Your task to perform on an android device: When is my next meeting? Image 0: 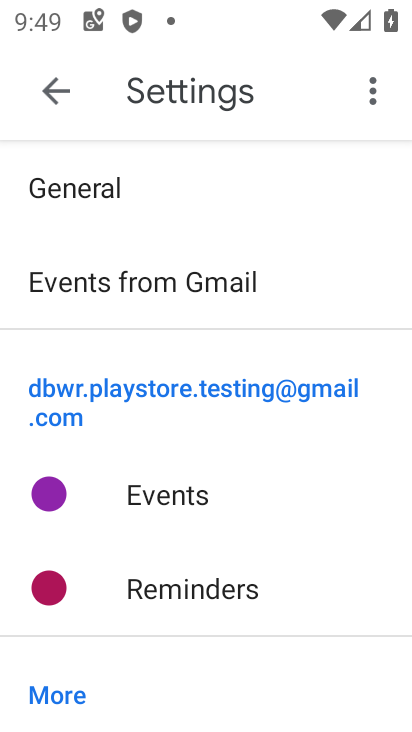
Step 0: press back button
Your task to perform on an android device: When is my next meeting? Image 1: 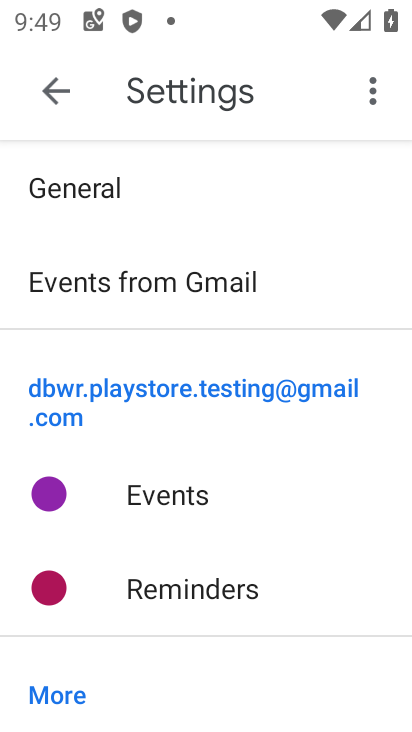
Step 1: press home button
Your task to perform on an android device: When is my next meeting? Image 2: 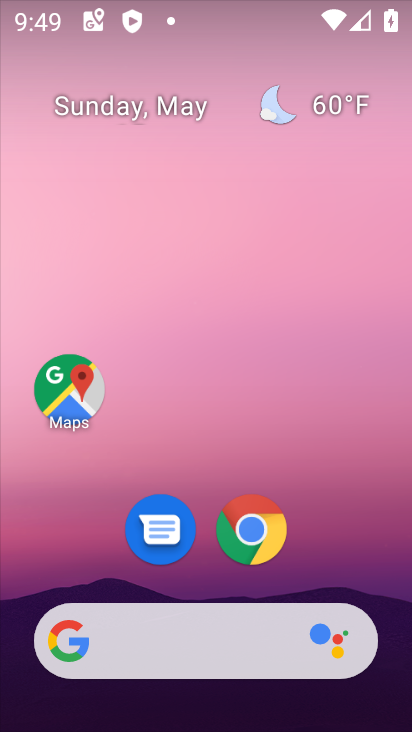
Step 2: drag from (354, 558) to (376, 212)
Your task to perform on an android device: When is my next meeting? Image 3: 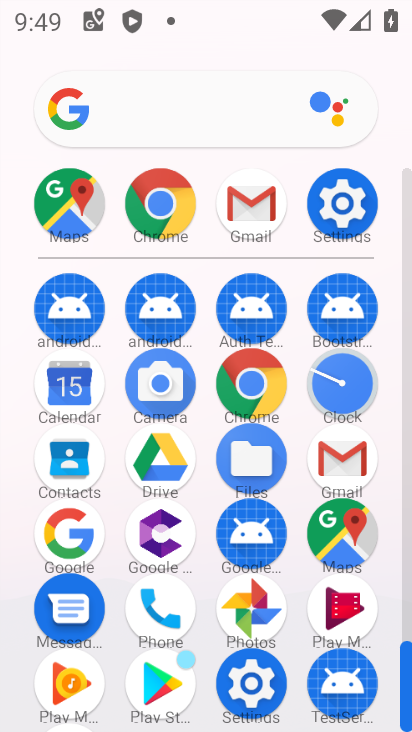
Step 3: click (72, 396)
Your task to perform on an android device: When is my next meeting? Image 4: 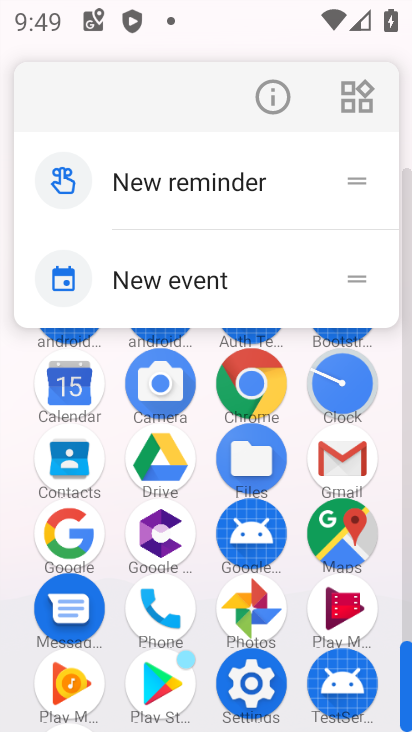
Step 4: click (72, 396)
Your task to perform on an android device: When is my next meeting? Image 5: 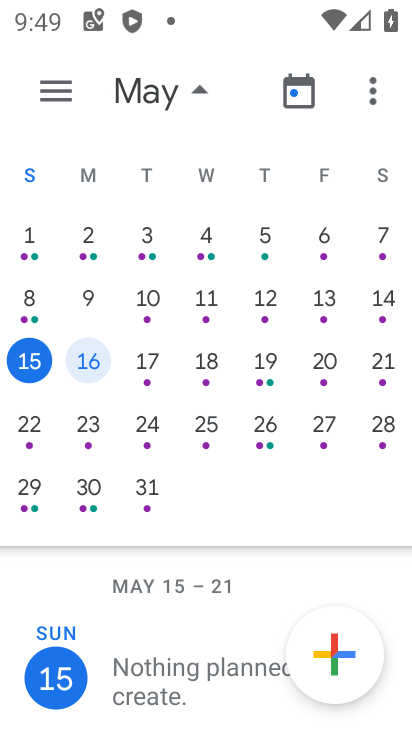
Step 5: drag from (240, 653) to (237, 358)
Your task to perform on an android device: When is my next meeting? Image 6: 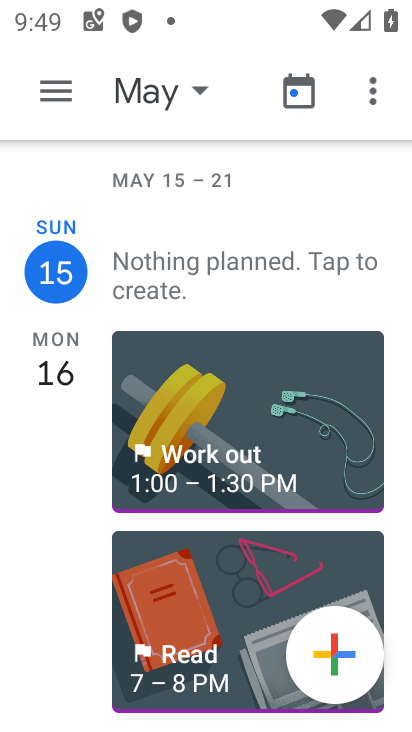
Step 6: drag from (174, 676) to (173, 449)
Your task to perform on an android device: When is my next meeting? Image 7: 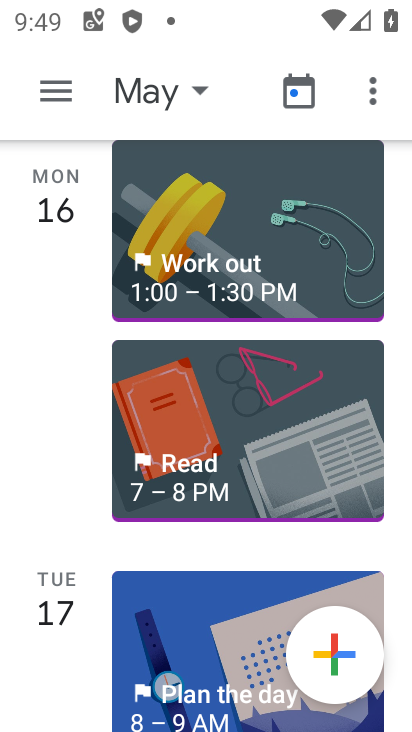
Step 7: click (306, 250)
Your task to perform on an android device: When is my next meeting? Image 8: 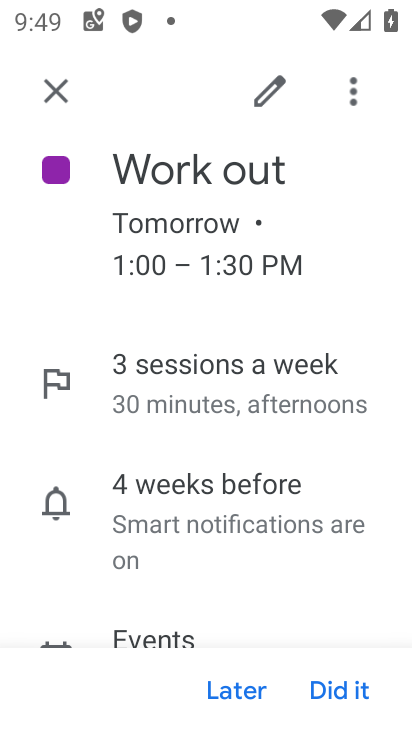
Step 8: task complete